Your task to perform on an android device: empty trash in google photos Image 0: 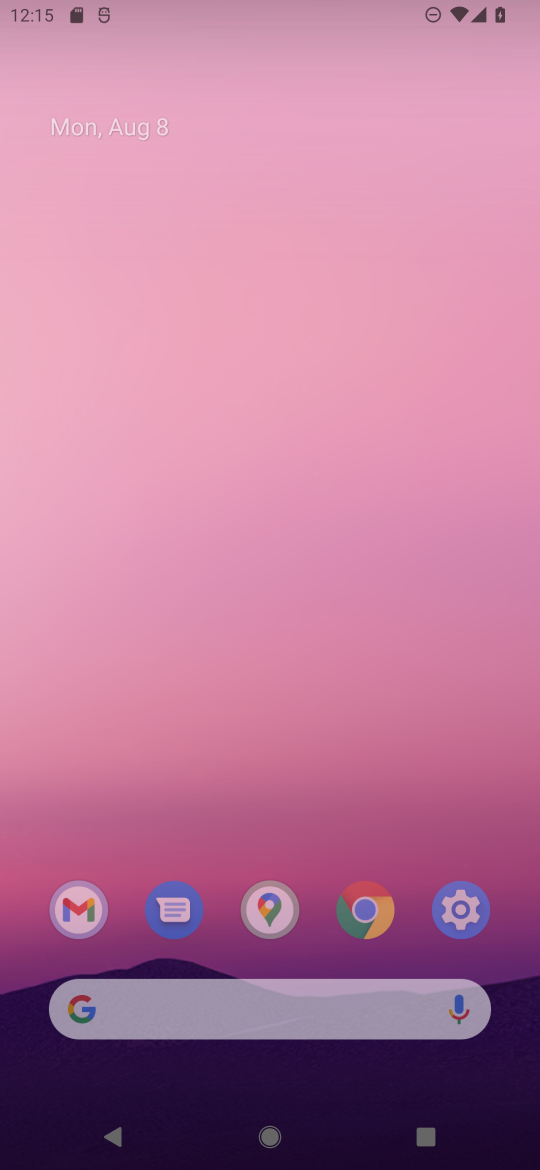
Step 0: press home button
Your task to perform on an android device: empty trash in google photos Image 1: 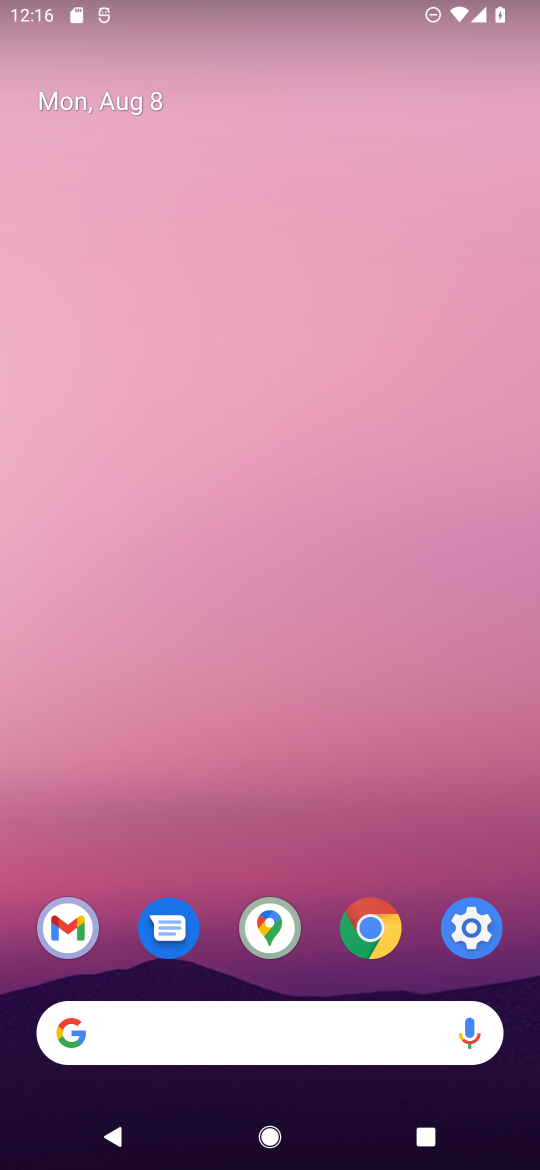
Step 1: drag from (320, 1036) to (390, 281)
Your task to perform on an android device: empty trash in google photos Image 2: 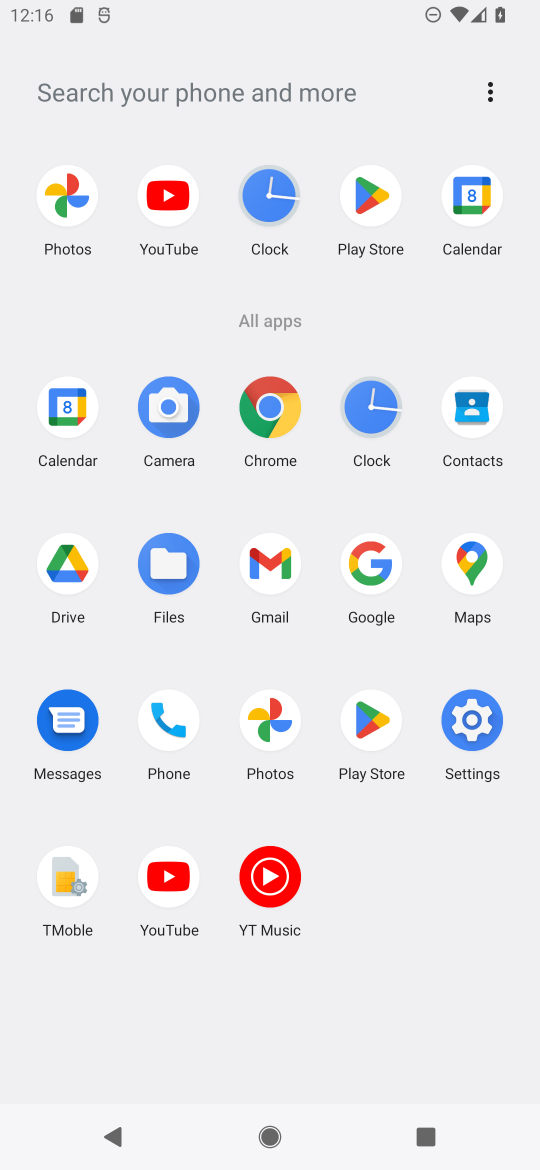
Step 2: click (274, 726)
Your task to perform on an android device: empty trash in google photos Image 3: 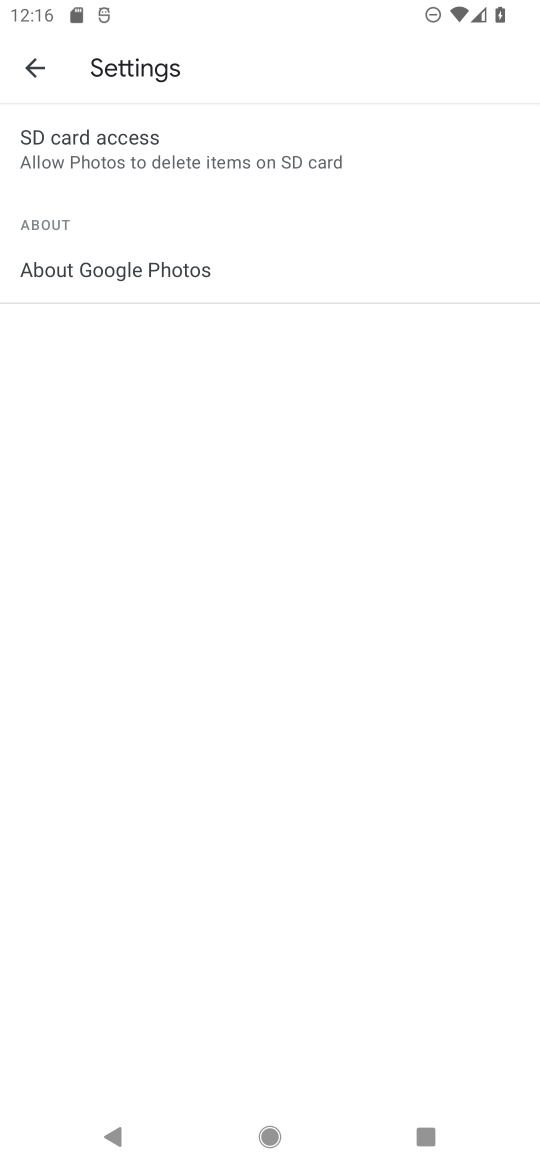
Step 3: click (42, 76)
Your task to perform on an android device: empty trash in google photos Image 4: 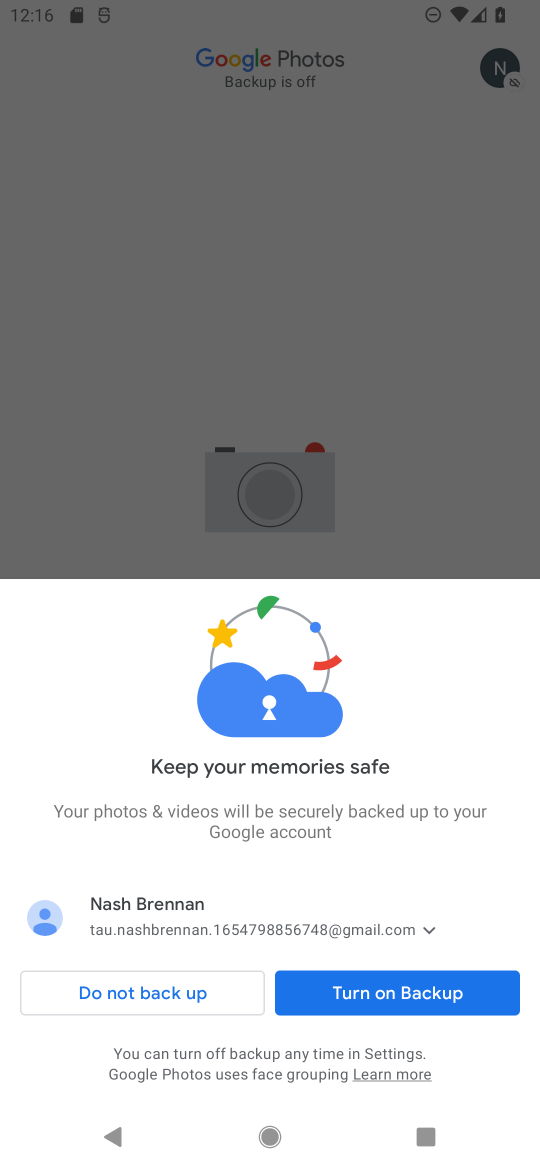
Step 4: click (334, 995)
Your task to perform on an android device: empty trash in google photos Image 5: 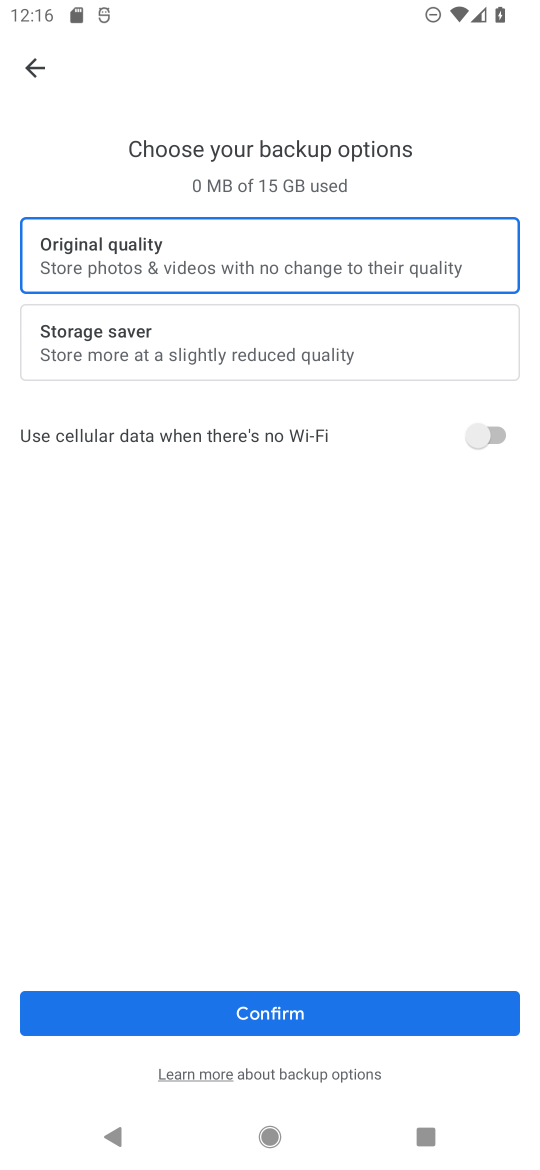
Step 5: click (253, 1013)
Your task to perform on an android device: empty trash in google photos Image 6: 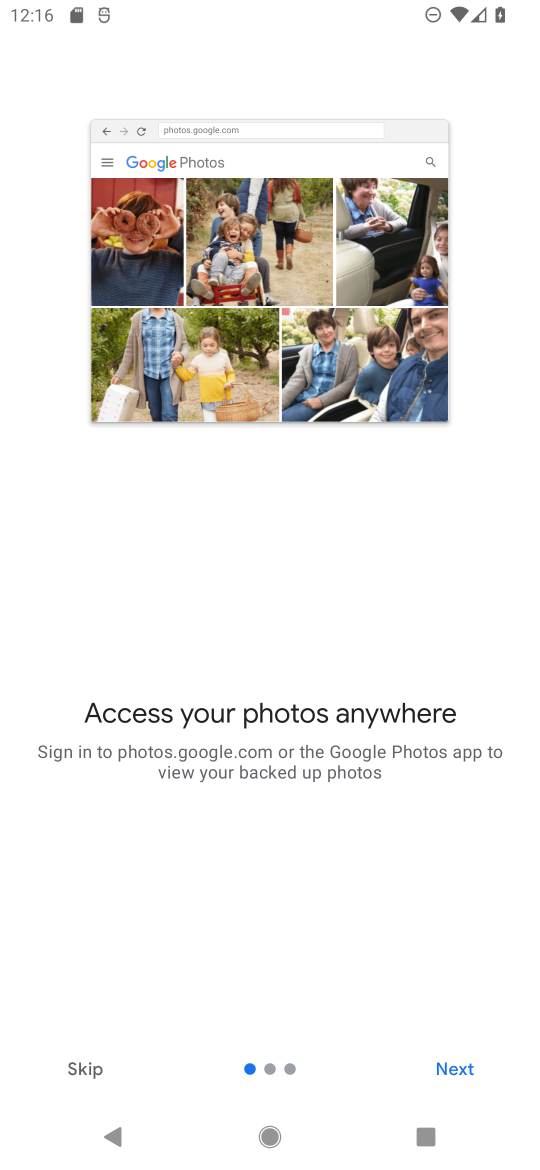
Step 6: click (453, 1067)
Your task to perform on an android device: empty trash in google photos Image 7: 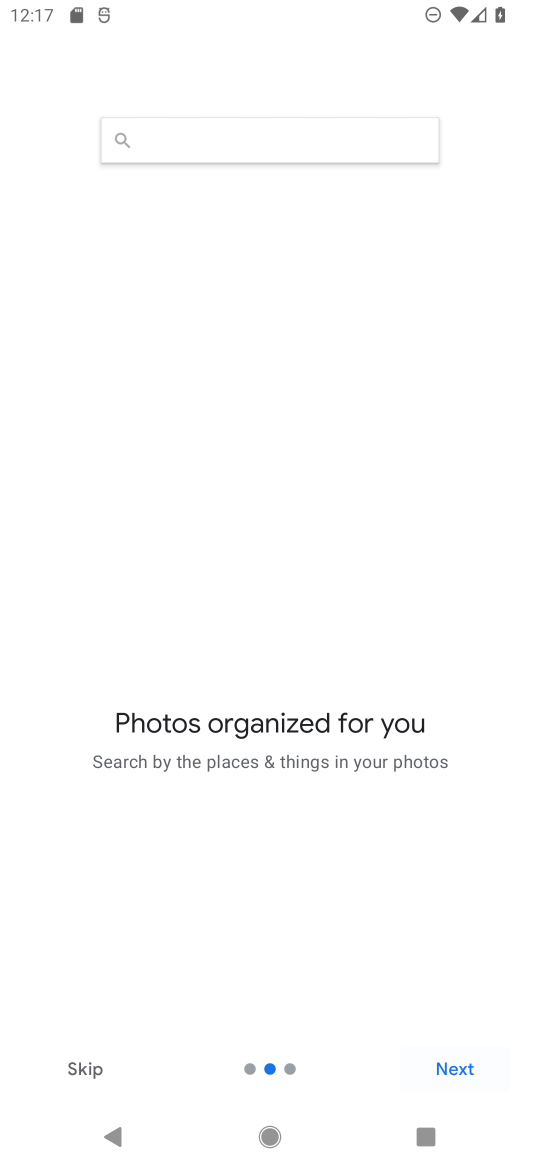
Step 7: click (453, 1065)
Your task to perform on an android device: empty trash in google photos Image 8: 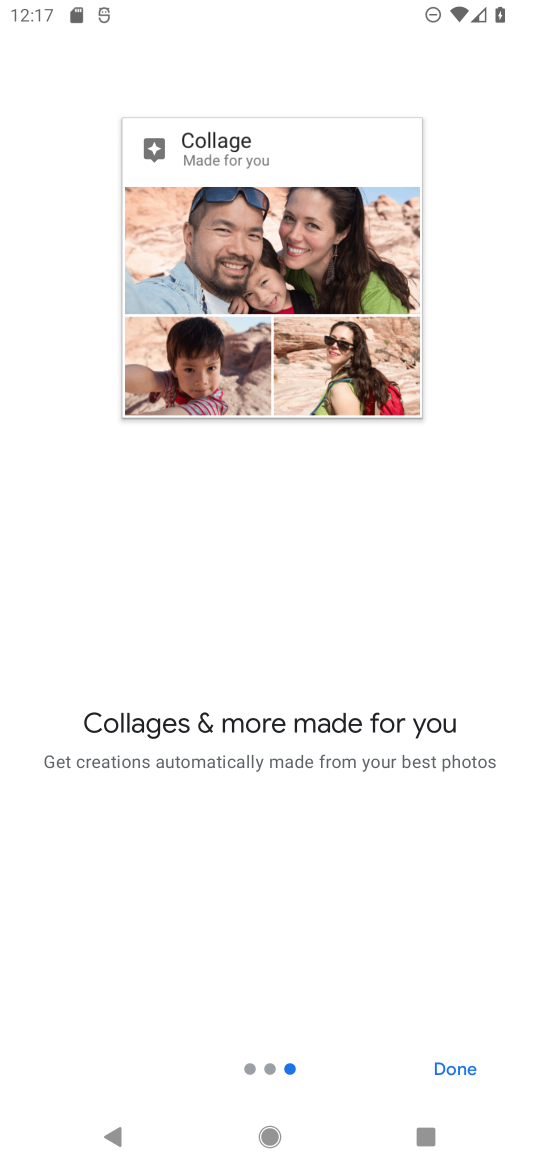
Step 8: click (439, 1065)
Your task to perform on an android device: empty trash in google photos Image 9: 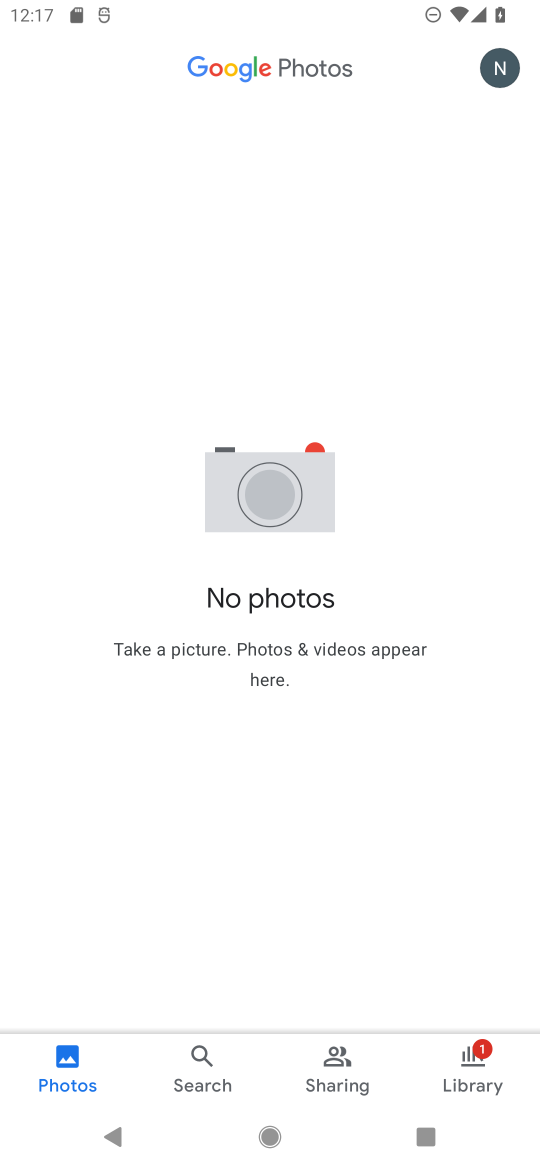
Step 9: click (190, 1053)
Your task to perform on an android device: empty trash in google photos Image 10: 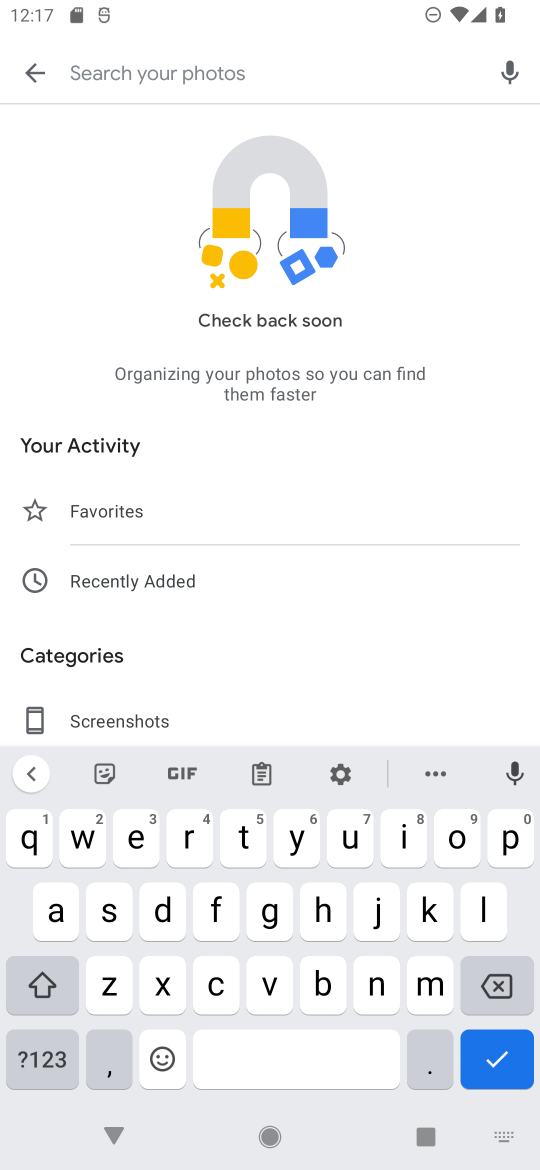
Step 10: click (249, 836)
Your task to perform on an android device: empty trash in google photos Image 11: 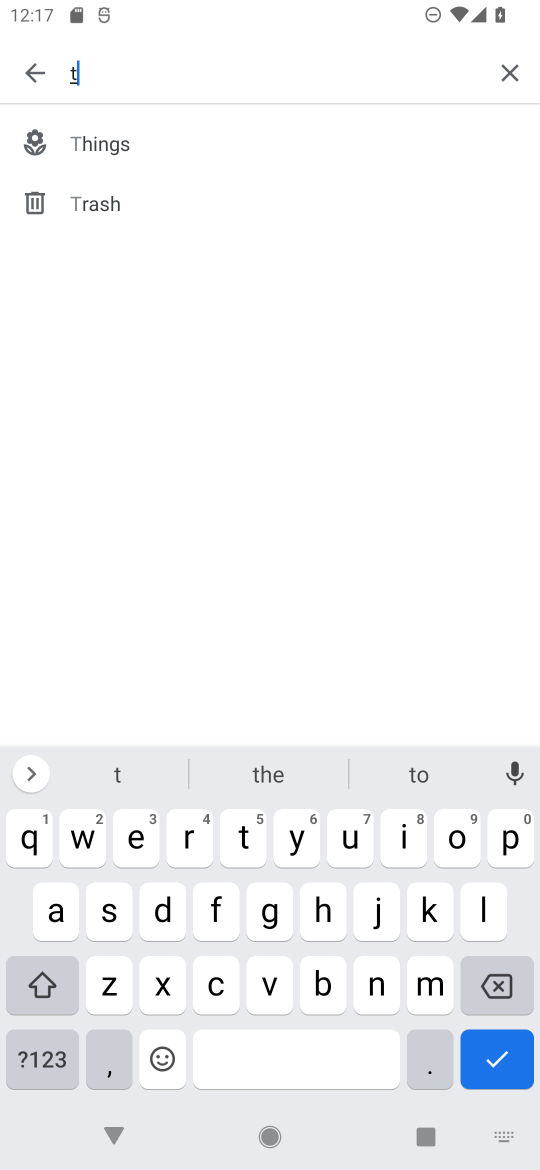
Step 11: click (195, 841)
Your task to perform on an android device: empty trash in google photos Image 12: 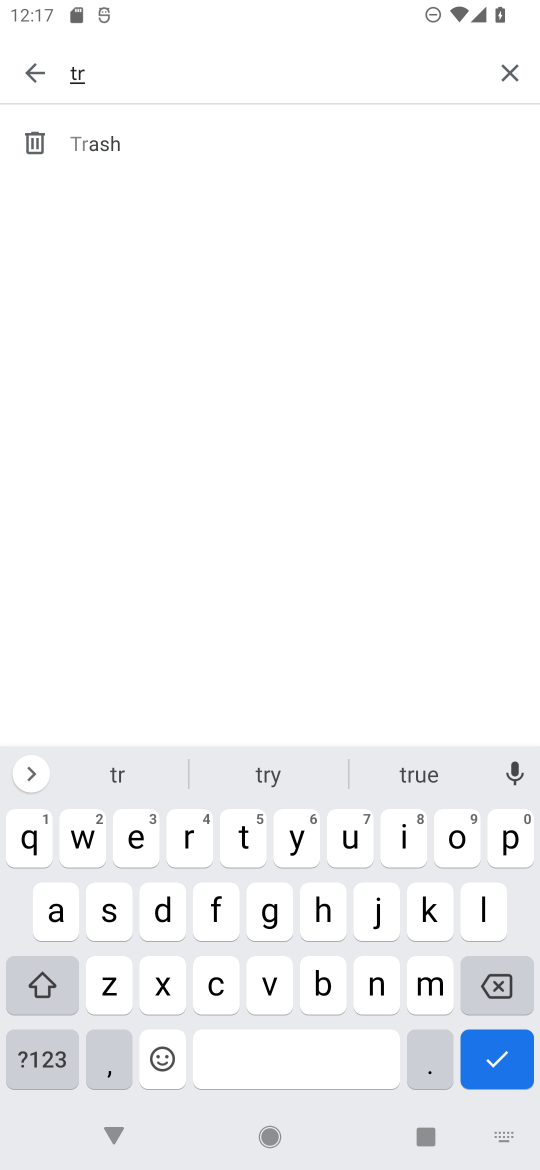
Step 12: click (132, 138)
Your task to perform on an android device: empty trash in google photos Image 13: 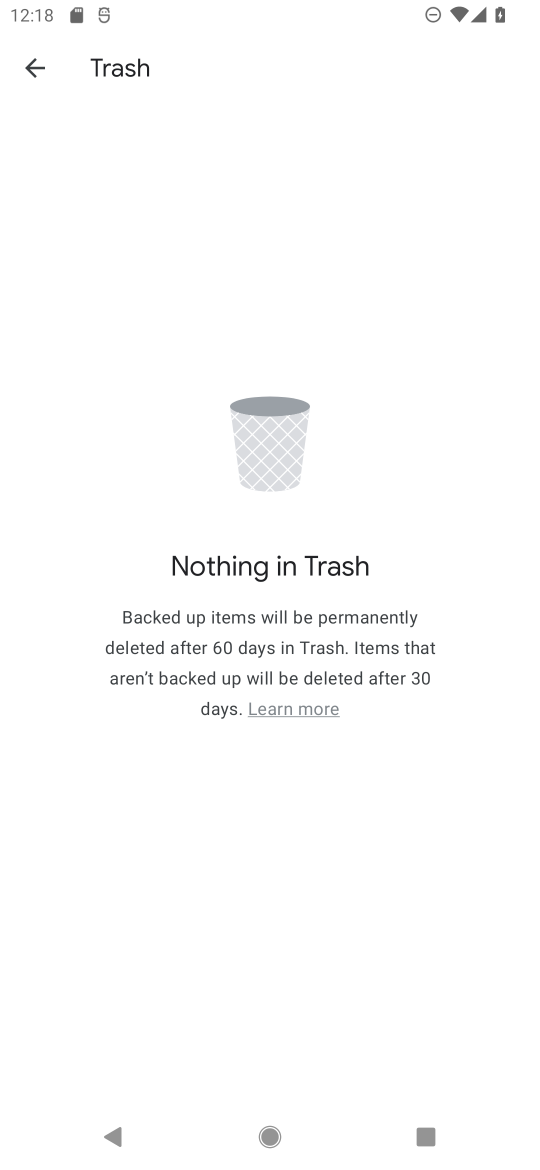
Step 13: task complete